Your task to perform on an android device: turn off location history Image 0: 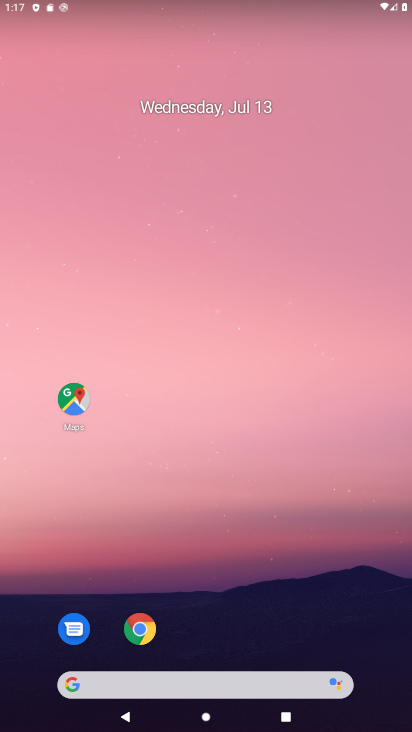
Step 0: drag from (289, 648) to (279, 148)
Your task to perform on an android device: turn off location history Image 1: 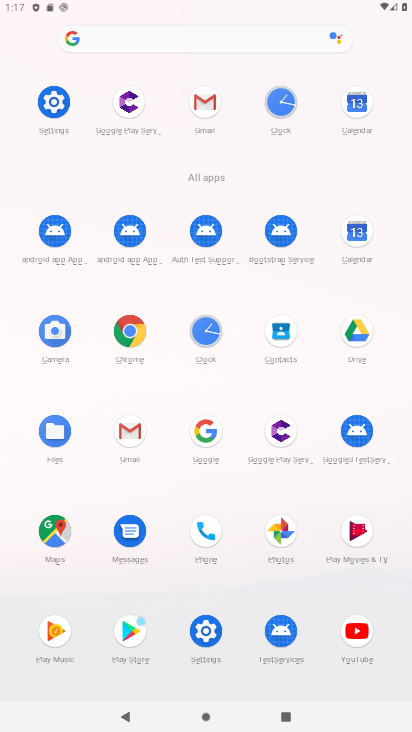
Step 1: click (69, 119)
Your task to perform on an android device: turn off location history Image 2: 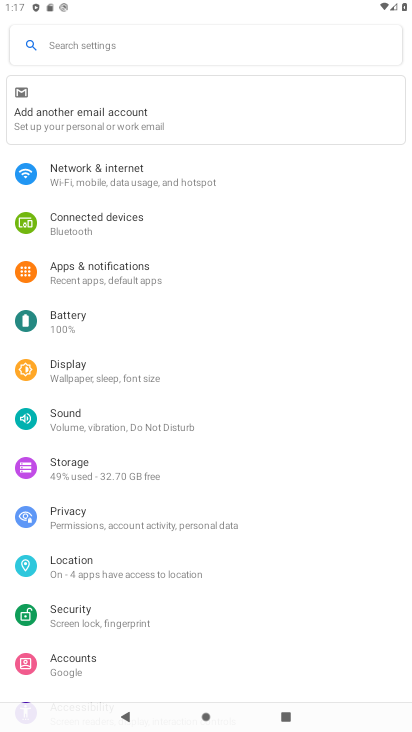
Step 2: click (132, 582)
Your task to perform on an android device: turn off location history Image 3: 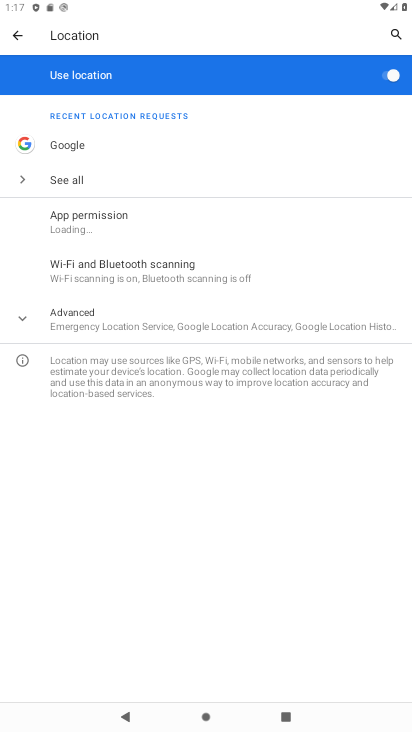
Step 3: click (126, 312)
Your task to perform on an android device: turn off location history Image 4: 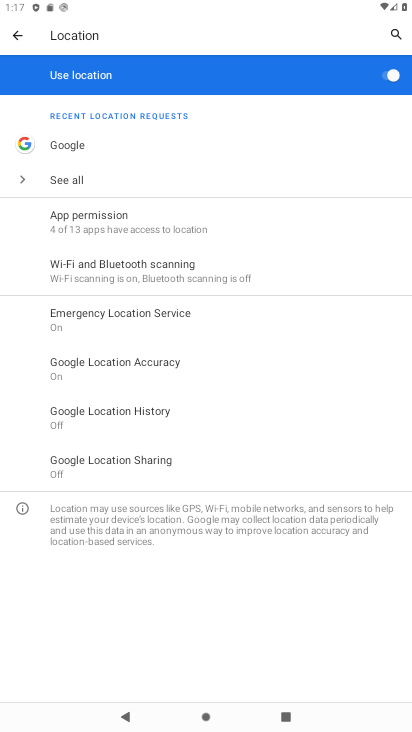
Step 4: click (174, 429)
Your task to perform on an android device: turn off location history Image 5: 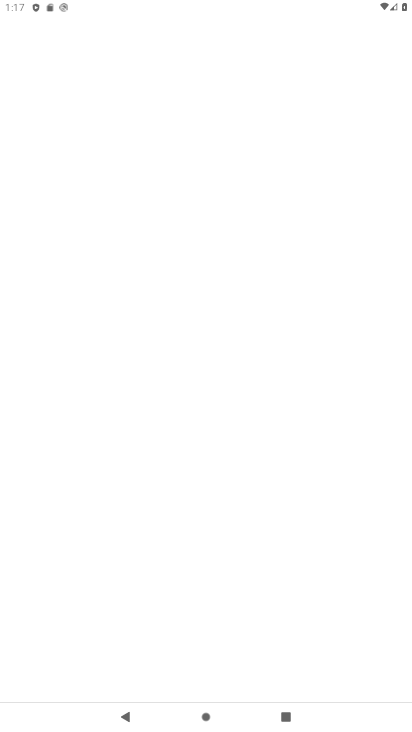
Step 5: task complete